Your task to perform on an android device: Is it going to rain this weekend? Image 0: 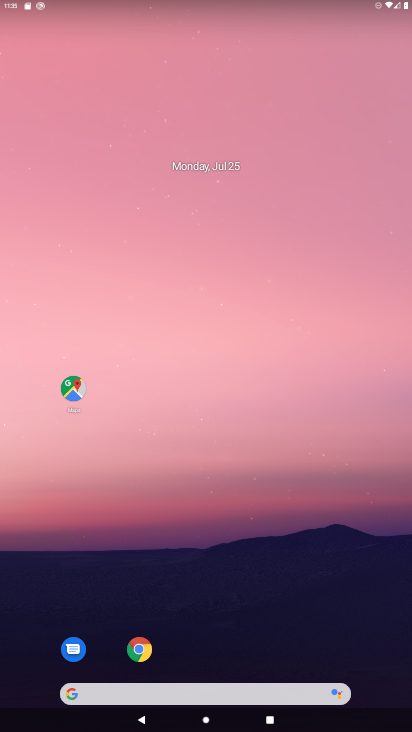
Step 0: click (171, 694)
Your task to perform on an android device: Is it going to rain this weekend? Image 1: 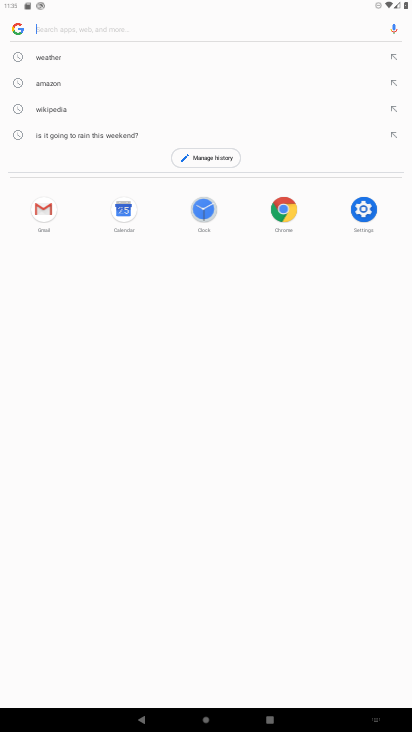
Step 1: click (45, 55)
Your task to perform on an android device: Is it going to rain this weekend? Image 2: 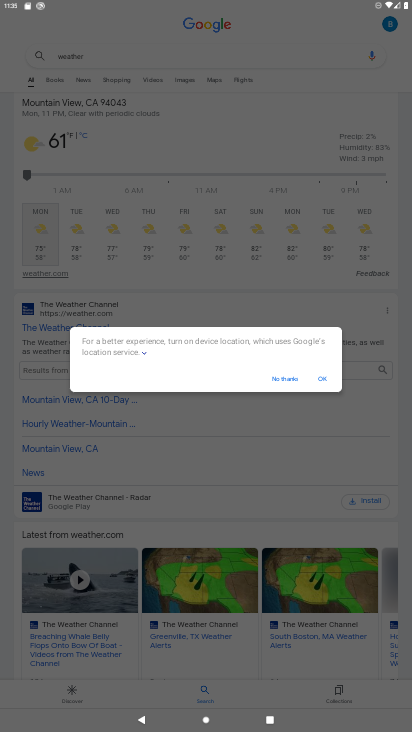
Step 2: click (320, 380)
Your task to perform on an android device: Is it going to rain this weekend? Image 3: 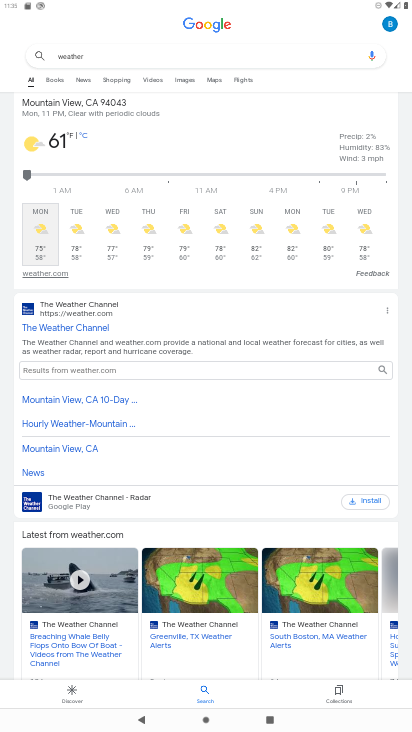
Step 3: task complete